Your task to perform on an android device: move an email to a new category in the gmail app Image 0: 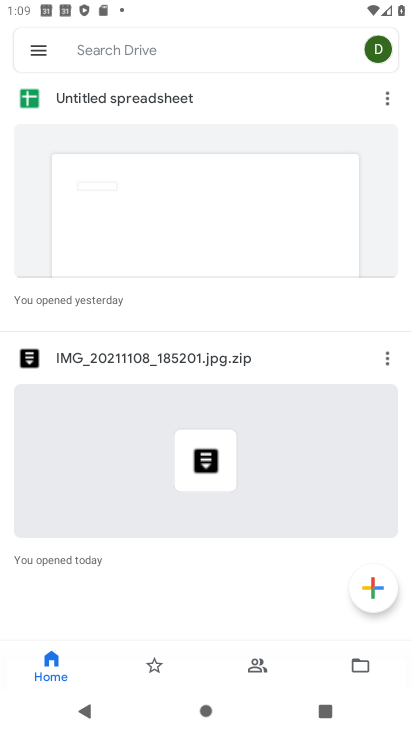
Step 0: task complete